Your task to perform on an android device: Open Reddit.com Image 0: 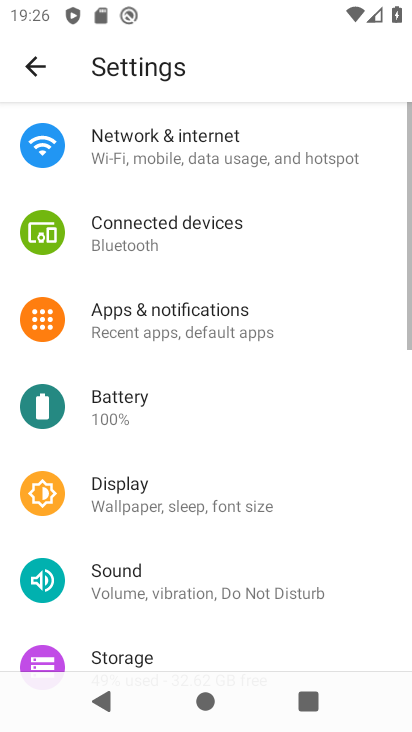
Step 0: press home button
Your task to perform on an android device: Open Reddit.com Image 1: 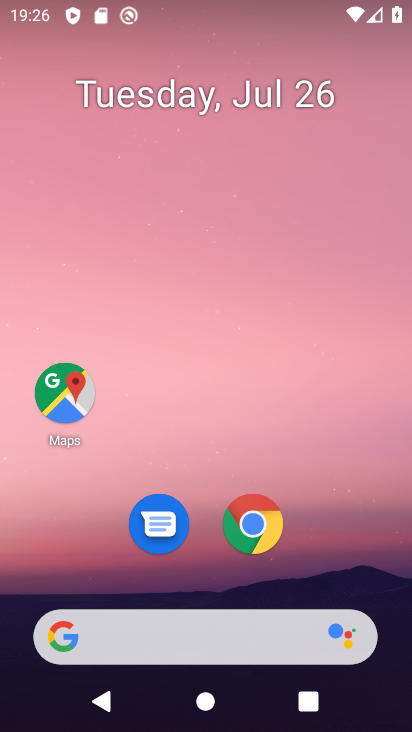
Step 1: click (246, 530)
Your task to perform on an android device: Open Reddit.com Image 2: 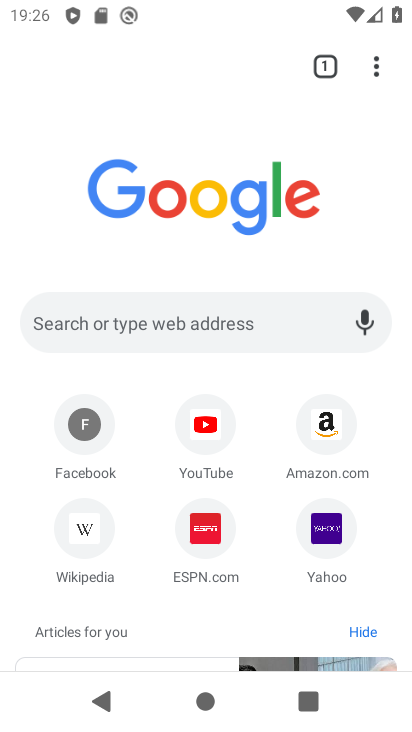
Step 2: click (156, 326)
Your task to perform on an android device: Open Reddit.com Image 3: 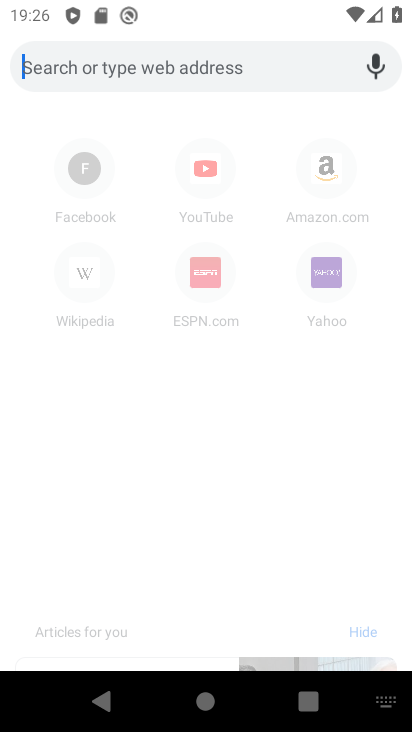
Step 3: type "reddit.com"
Your task to perform on an android device: Open Reddit.com Image 4: 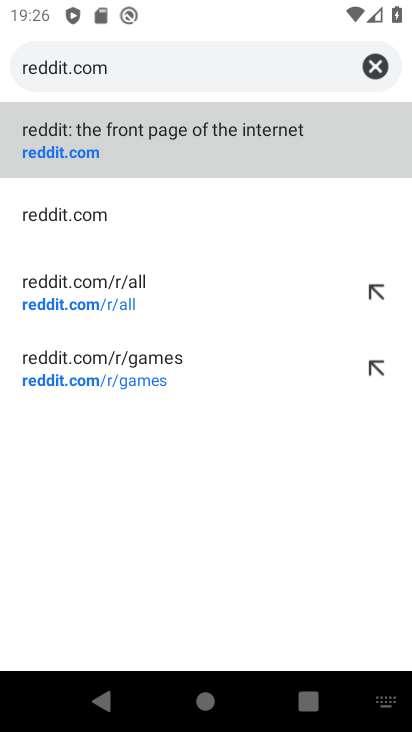
Step 4: click (95, 145)
Your task to perform on an android device: Open Reddit.com Image 5: 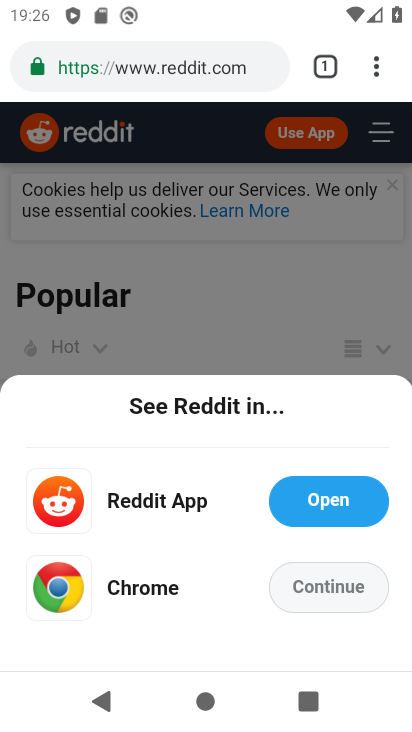
Step 5: task complete